Your task to perform on an android device: Go to settings Image 0: 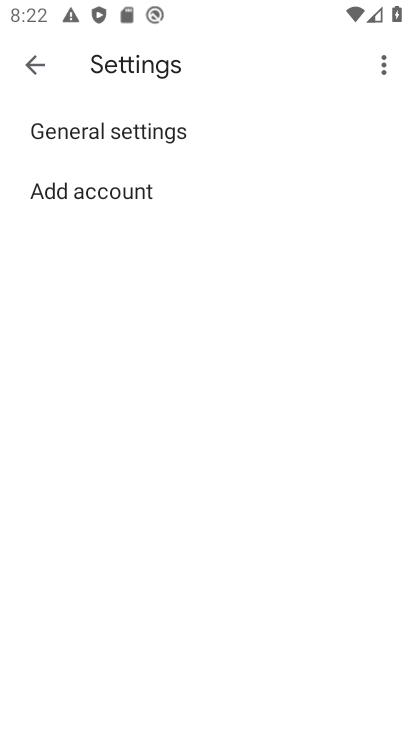
Step 0: click (32, 70)
Your task to perform on an android device: Go to settings Image 1: 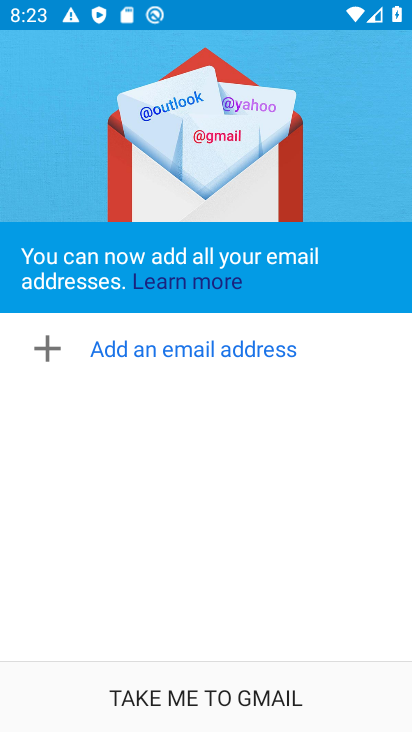
Step 1: press back button
Your task to perform on an android device: Go to settings Image 2: 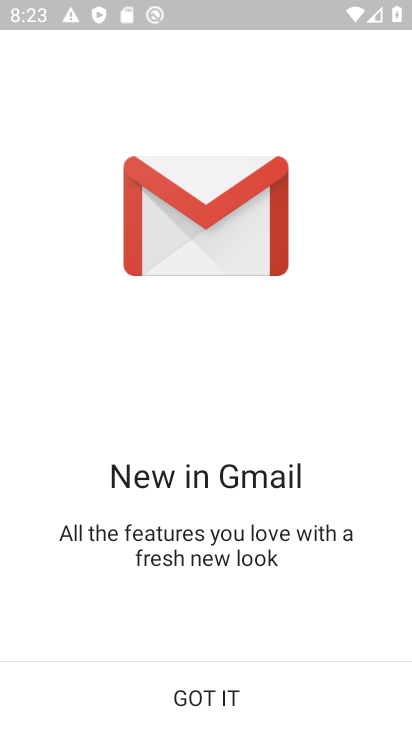
Step 2: press home button
Your task to perform on an android device: Go to settings Image 3: 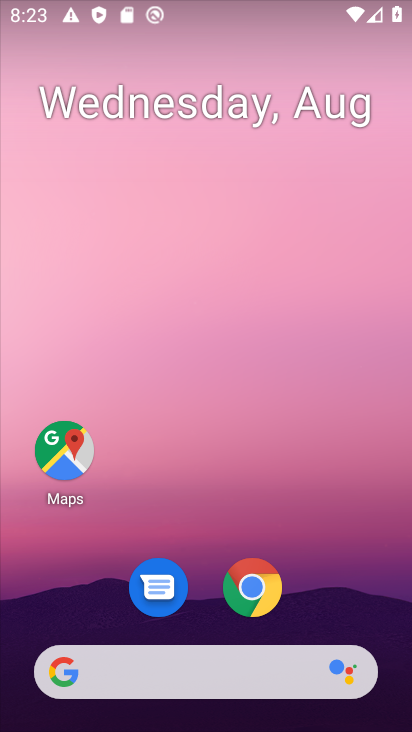
Step 3: drag from (193, 462) to (100, 226)
Your task to perform on an android device: Go to settings Image 4: 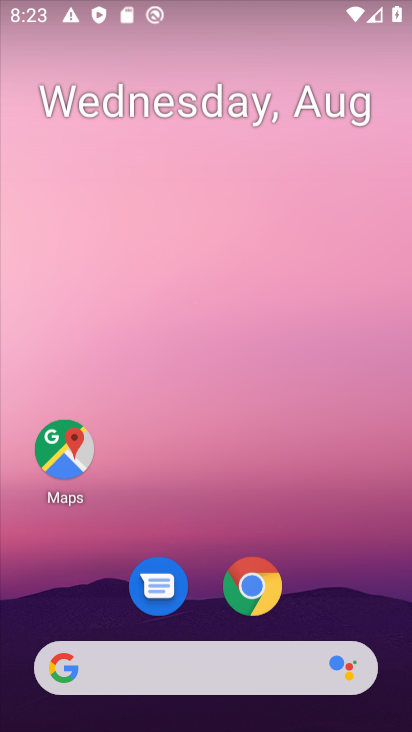
Step 4: drag from (225, 483) to (163, 166)
Your task to perform on an android device: Go to settings Image 5: 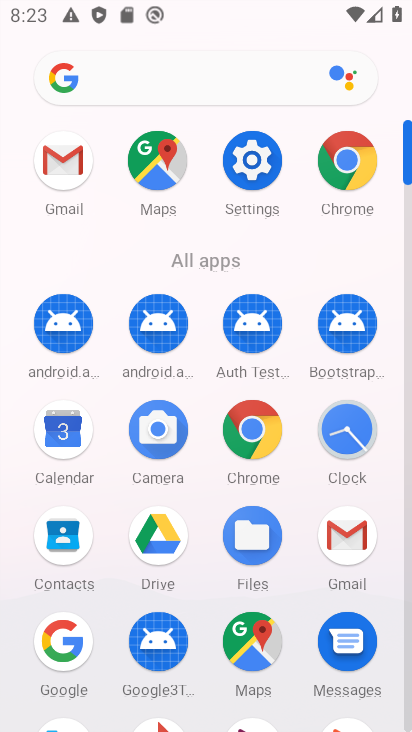
Step 5: drag from (143, 412) to (94, 163)
Your task to perform on an android device: Go to settings Image 6: 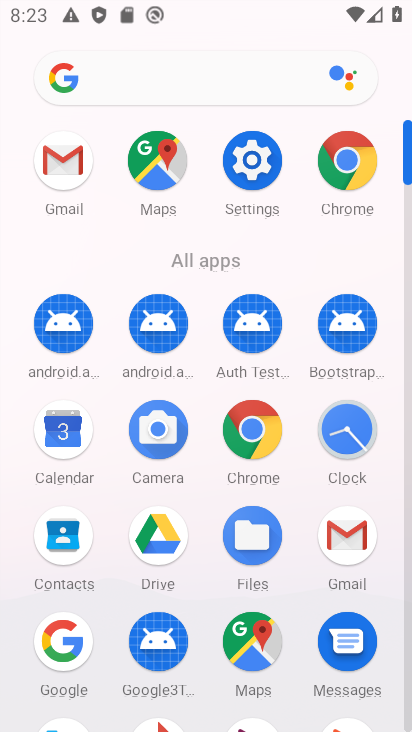
Step 6: click (245, 176)
Your task to perform on an android device: Go to settings Image 7: 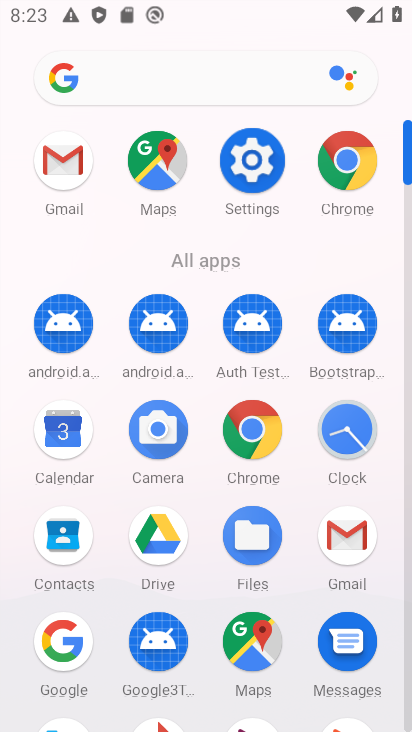
Step 7: click (245, 175)
Your task to perform on an android device: Go to settings Image 8: 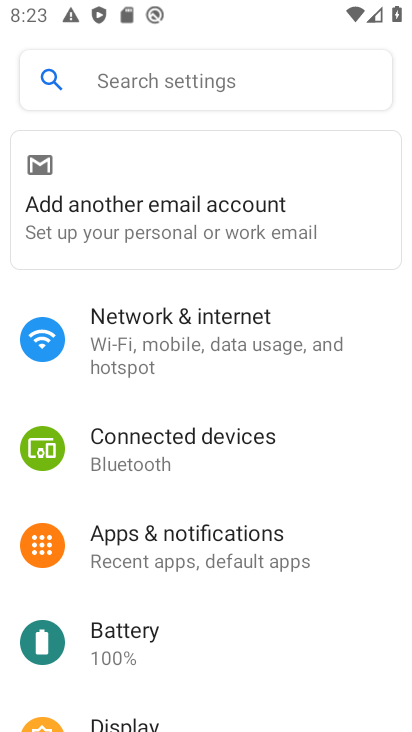
Step 8: task complete